Your task to perform on an android device: turn on location history Image 0: 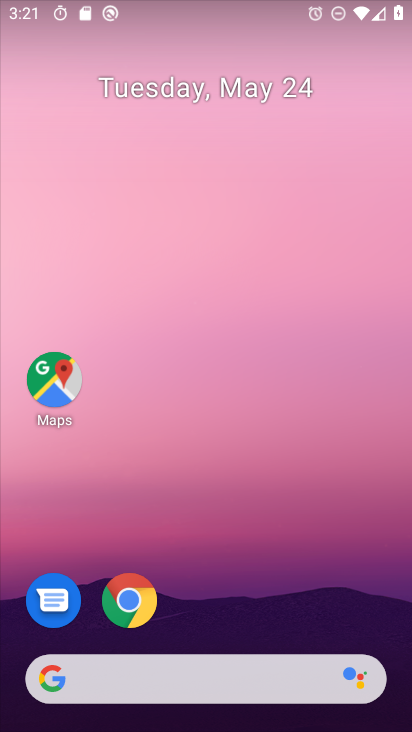
Step 0: drag from (270, 468) to (206, 9)
Your task to perform on an android device: turn on location history Image 1: 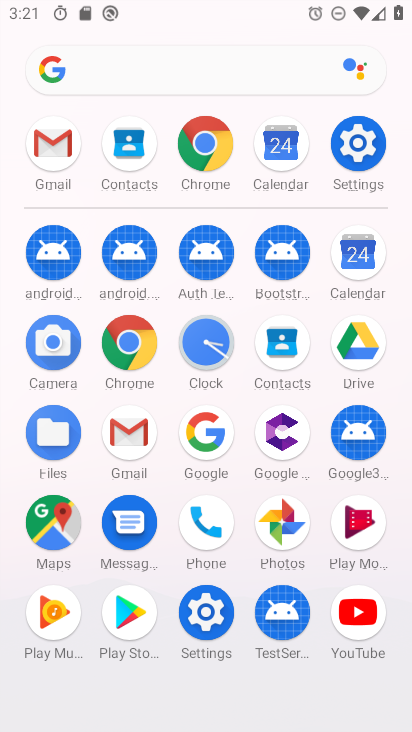
Step 1: click (361, 150)
Your task to perform on an android device: turn on location history Image 2: 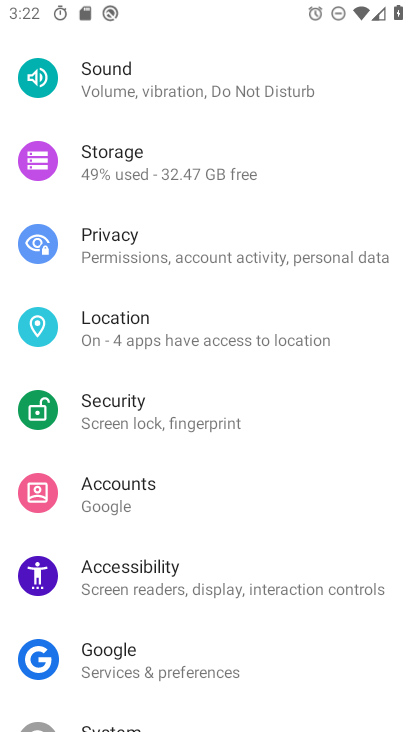
Step 2: click (161, 339)
Your task to perform on an android device: turn on location history Image 3: 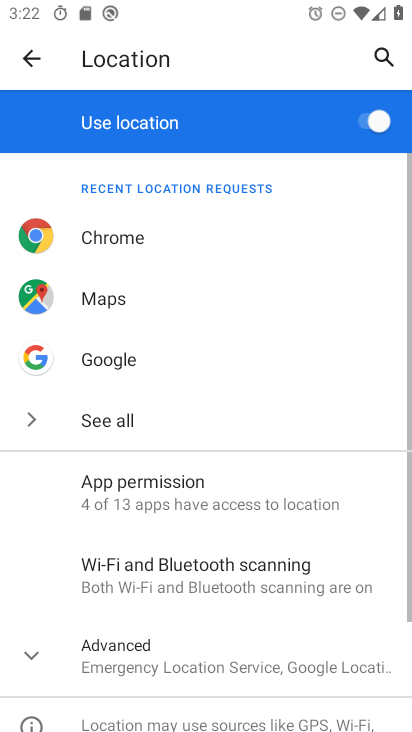
Step 3: drag from (212, 600) to (219, 216)
Your task to perform on an android device: turn on location history Image 4: 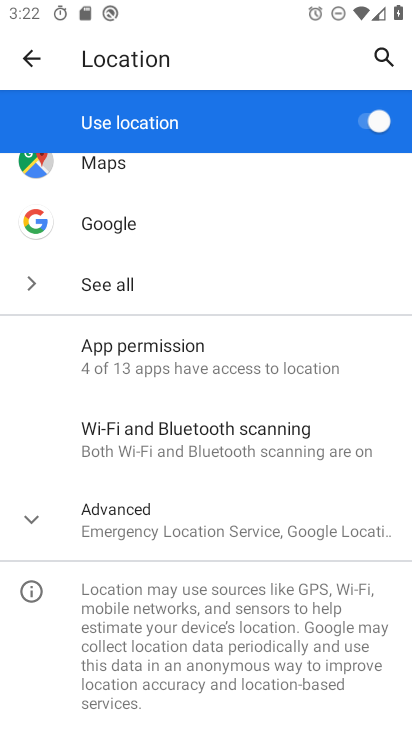
Step 4: click (178, 527)
Your task to perform on an android device: turn on location history Image 5: 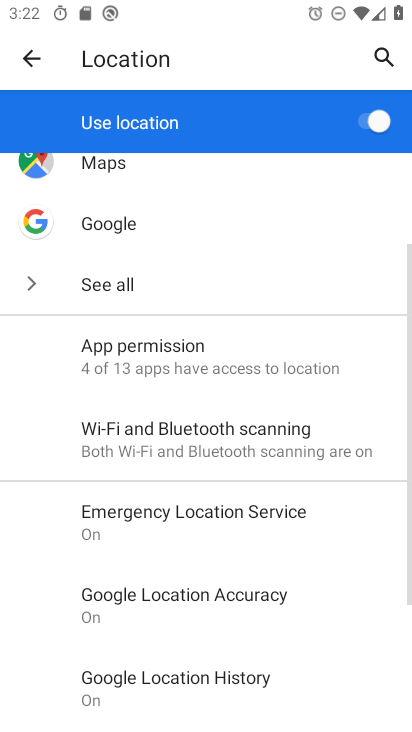
Step 5: drag from (230, 641) to (274, 351)
Your task to perform on an android device: turn on location history Image 6: 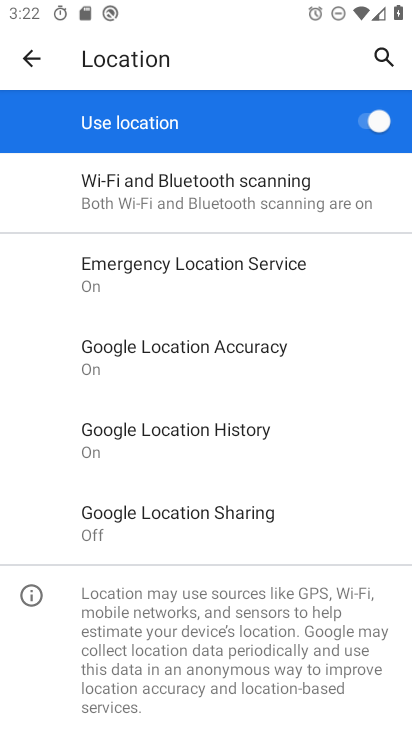
Step 6: click (231, 438)
Your task to perform on an android device: turn on location history Image 7: 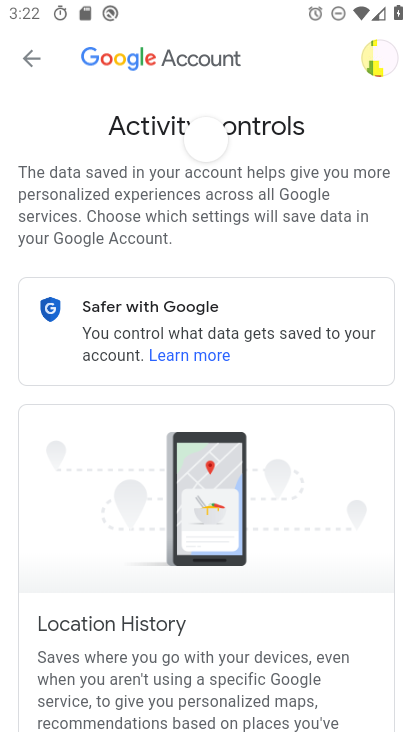
Step 7: task complete